Your task to perform on an android device: see creations saved in the google photos Image 0: 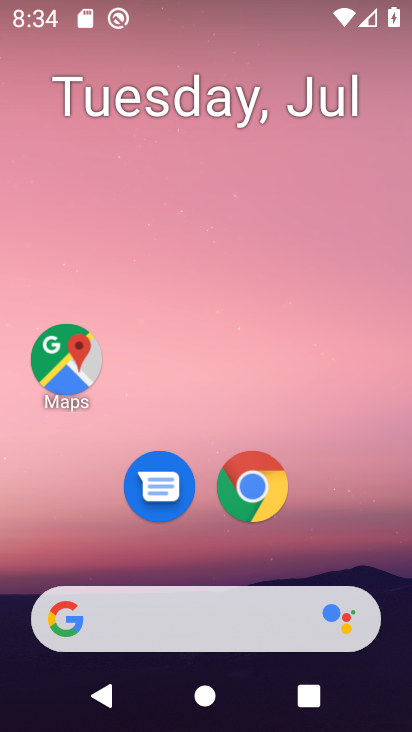
Step 0: drag from (274, 602) to (314, 133)
Your task to perform on an android device: see creations saved in the google photos Image 1: 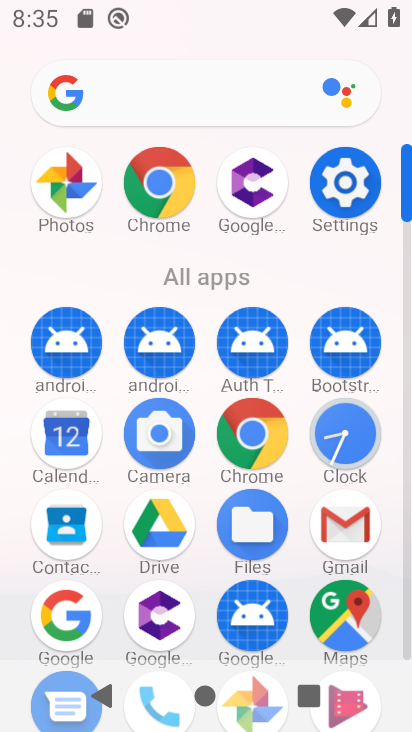
Step 1: drag from (265, 507) to (311, 218)
Your task to perform on an android device: see creations saved in the google photos Image 2: 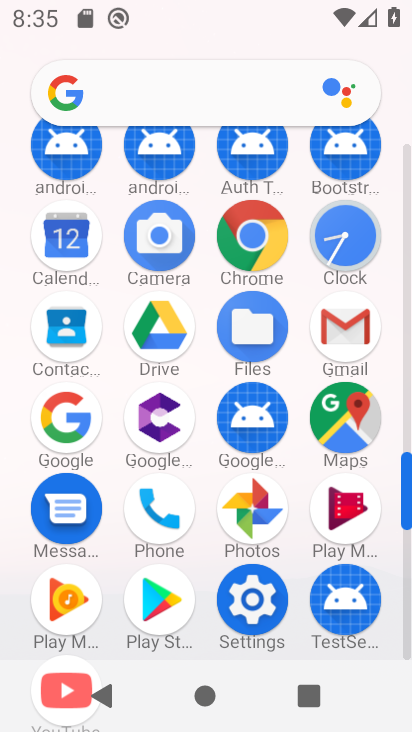
Step 2: click (254, 538)
Your task to perform on an android device: see creations saved in the google photos Image 3: 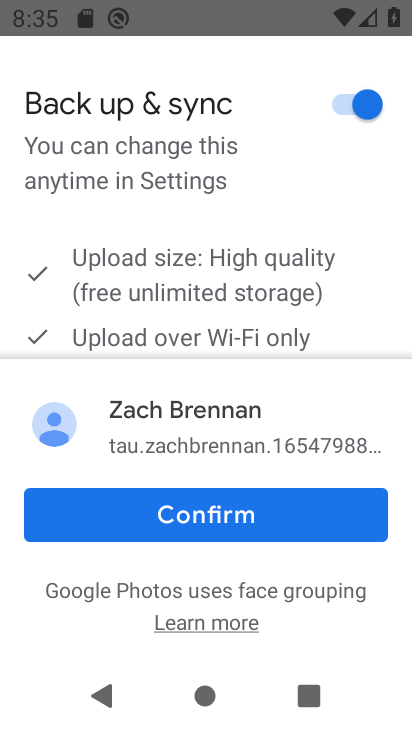
Step 3: click (243, 503)
Your task to perform on an android device: see creations saved in the google photos Image 4: 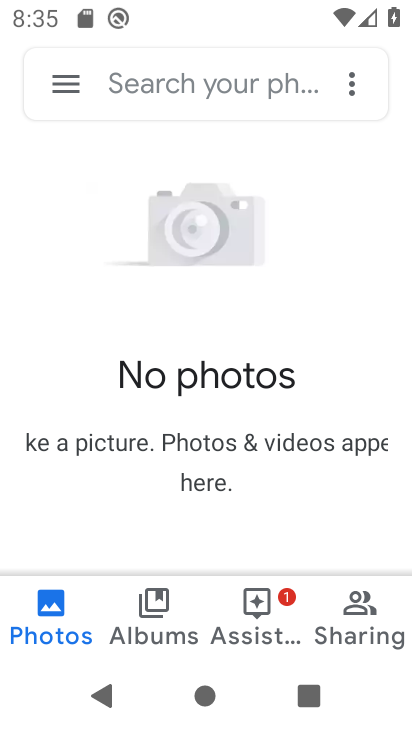
Step 4: click (240, 628)
Your task to perform on an android device: see creations saved in the google photos Image 5: 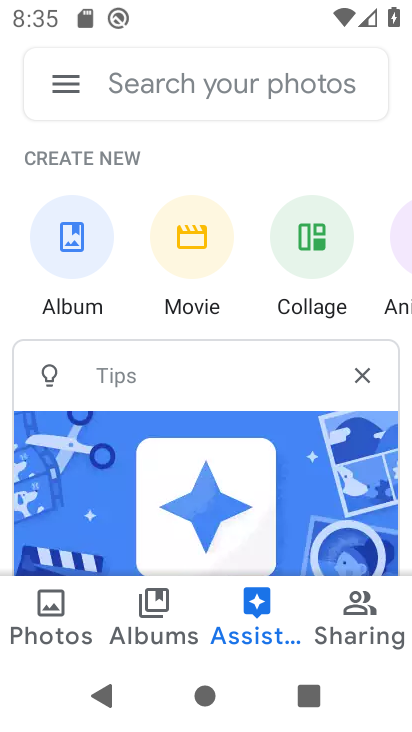
Step 5: task complete